Your task to perform on an android device: set an alarm Image 0: 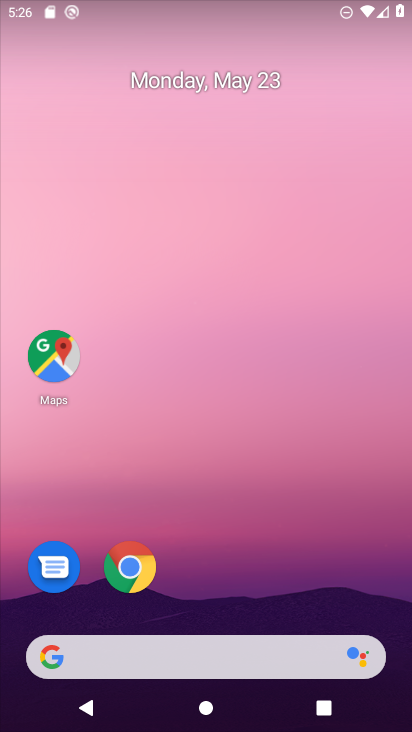
Step 0: drag from (238, 589) to (181, 151)
Your task to perform on an android device: set an alarm Image 1: 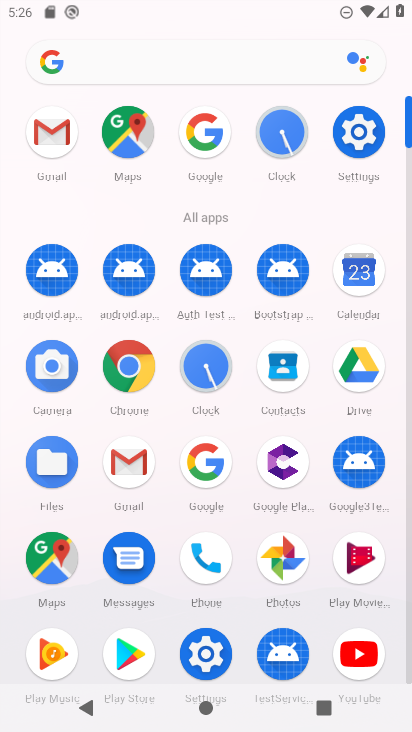
Step 1: click (282, 131)
Your task to perform on an android device: set an alarm Image 2: 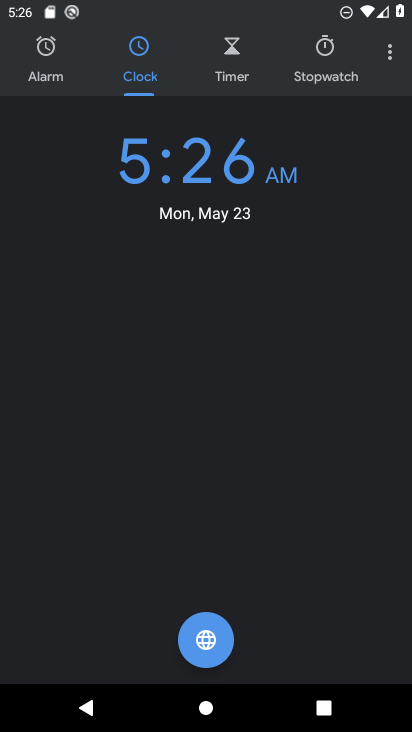
Step 2: click (391, 45)
Your task to perform on an android device: set an alarm Image 3: 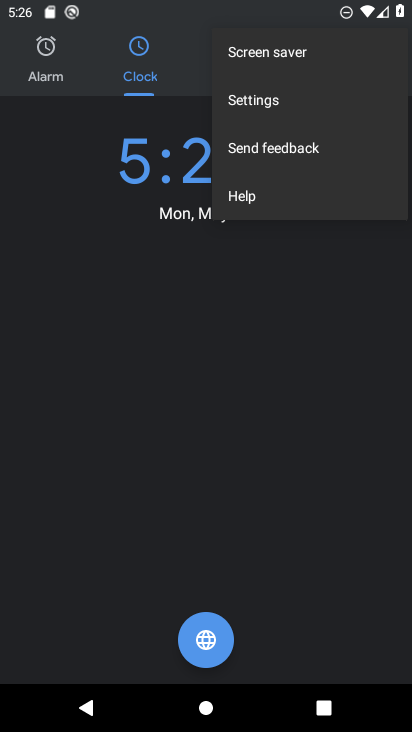
Step 3: click (43, 52)
Your task to perform on an android device: set an alarm Image 4: 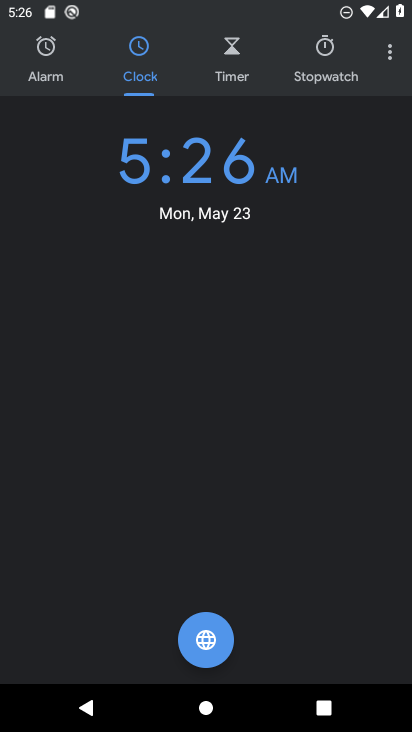
Step 4: click (43, 53)
Your task to perform on an android device: set an alarm Image 5: 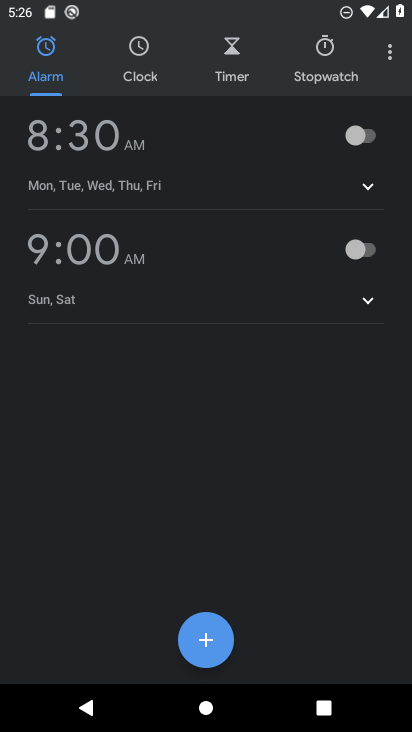
Step 5: click (197, 639)
Your task to perform on an android device: set an alarm Image 6: 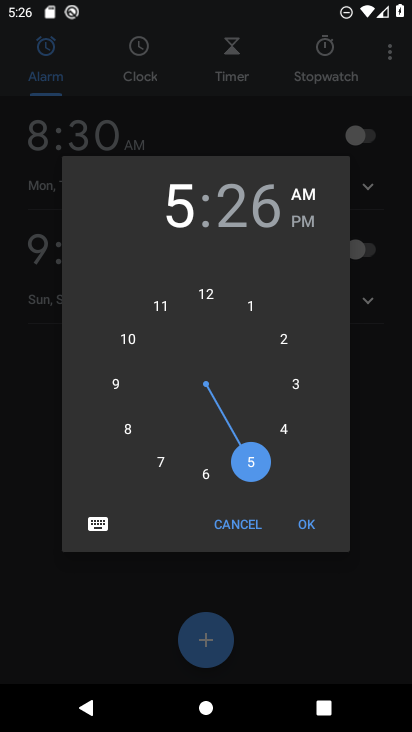
Step 6: click (244, 302)
Your task to perform on an android device: set an alarm Image 7: 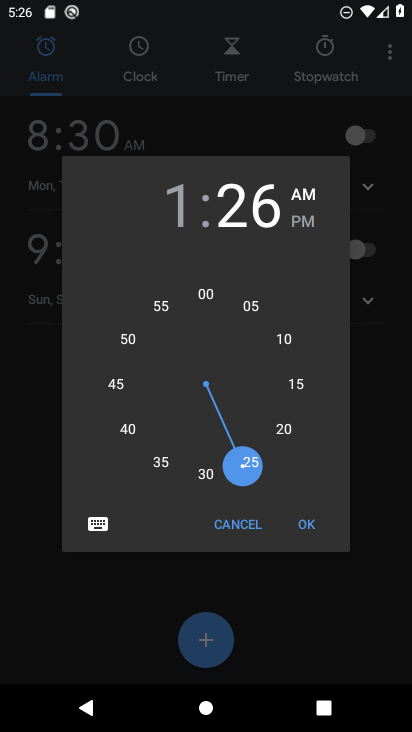
Step 7: click (244, 302)
Your task to perform on an android device: set an alarm Image 8: 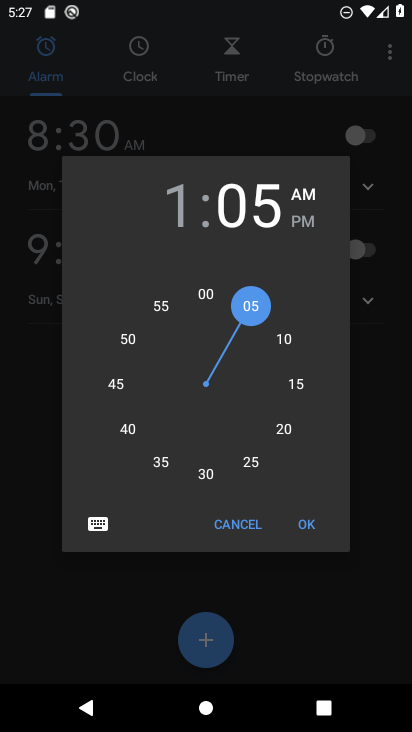
Step 8: click (300, 228)
Your task to perform on an android device: set an alarm Image 9: 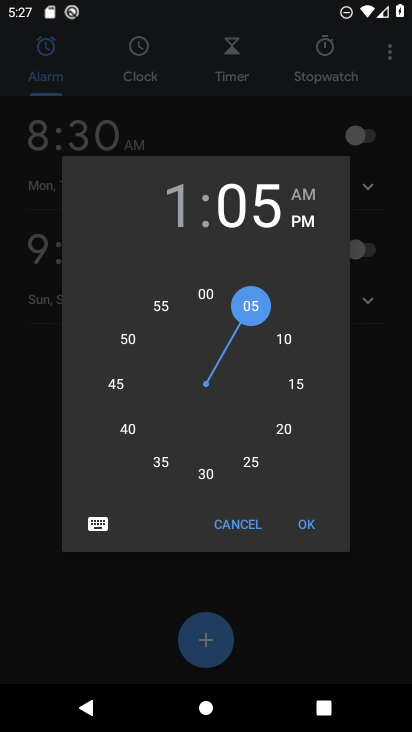
Step 9: click (105, 530)
Your task to perform on an android device: set an alarm Image 10: 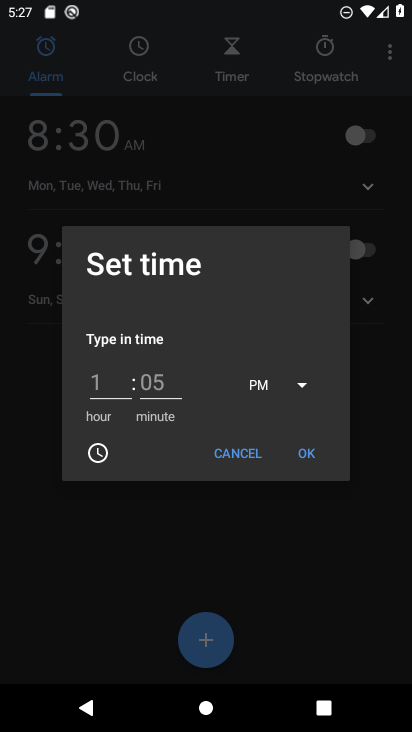
Step 10: click (310, 455)
Your task to perform on an android device: set an alarm Image 11: 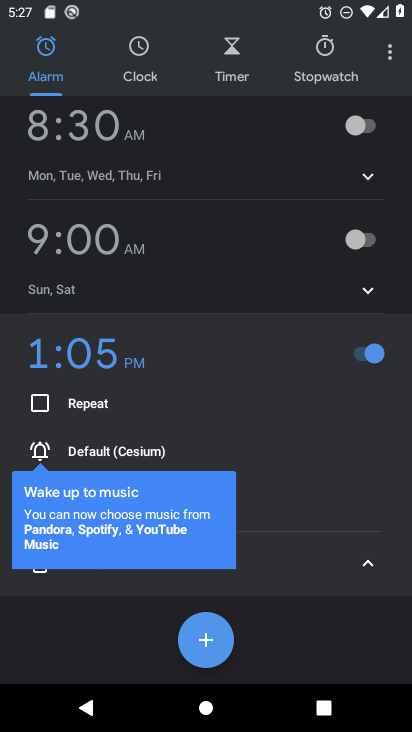
Step 11: click (370, 570)
Your task to perform on an android device: set an alarm Image 12: 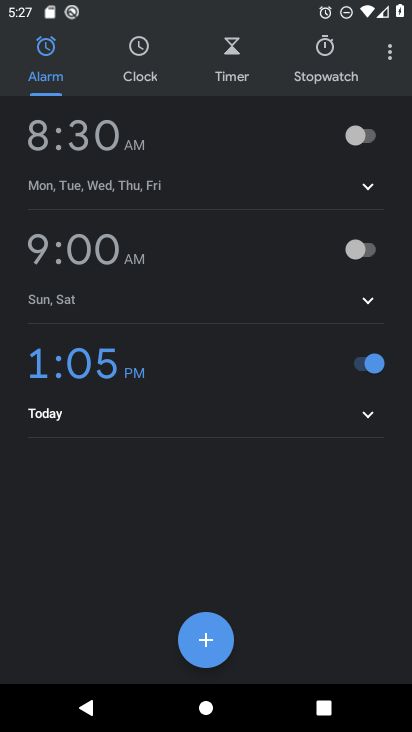
Step 12: task complete